Your task to perform on an android device: delete location history Image 0: 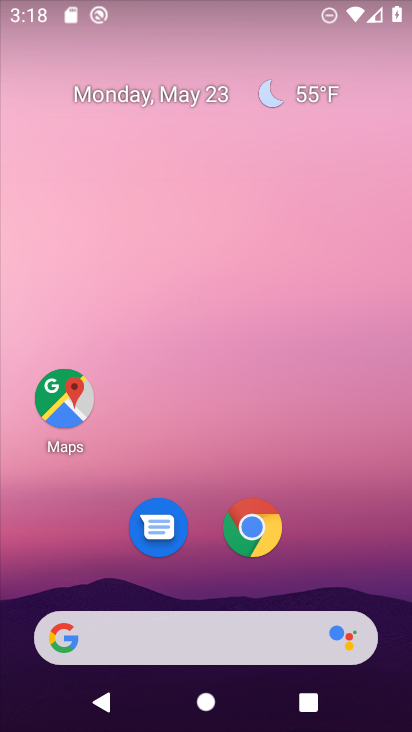
Step 0: click (66, 390)
Your task to perform on an android device: delete location history Image 1: 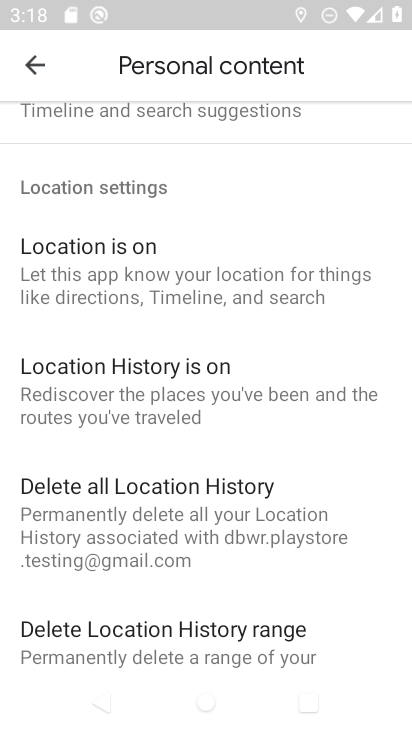
Step 1: click (236, 503)
Your task to perform on an android device: delete location history Image 2: 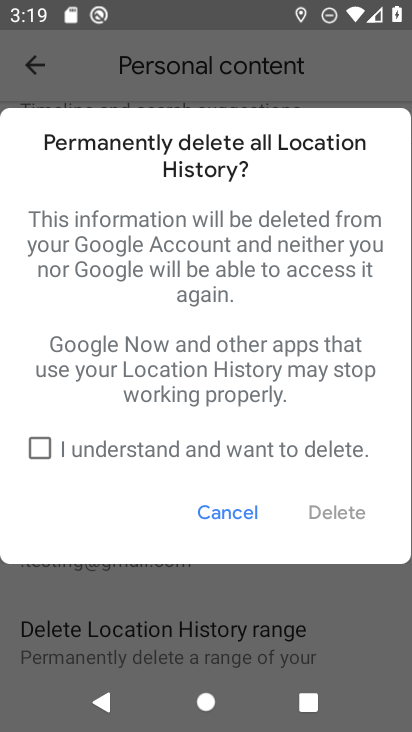
Step 2: click (27, 448)
Your task to perform on an android device: delete location history Image 3: 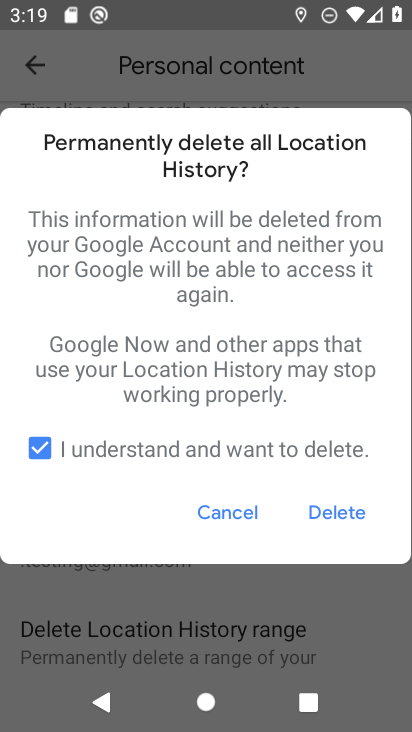
Step 3: click (349, 510)
Your task to perform on an android device: delete location history Image 4: 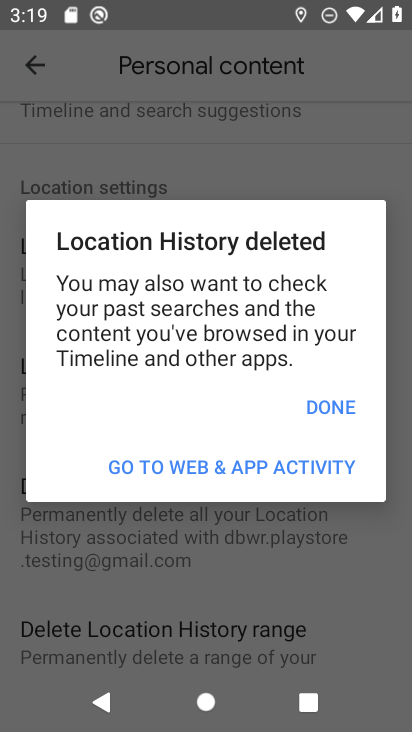
Step 4: click (329, 403)
Your task to perform on an android device: delete location history Image 5: 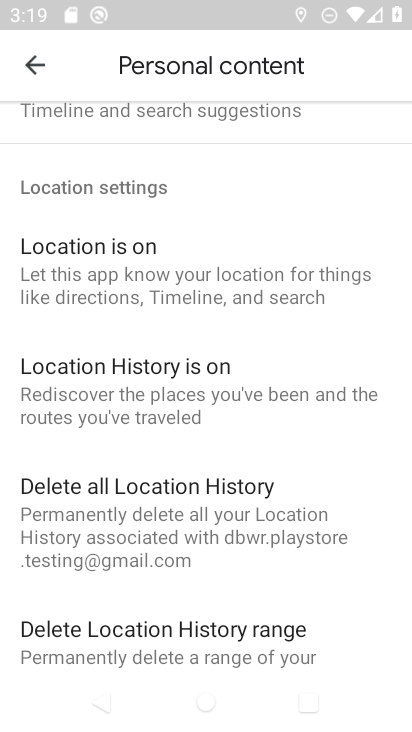
Step 5: task complete